Your task to perform on an android device: Check the weather Image 0: 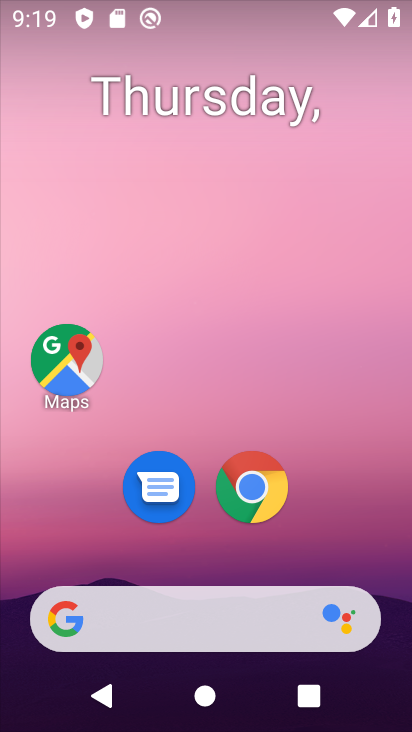
Step 0: click (268, 507)
Your task to perform on an android device: Check the weather Image 1: 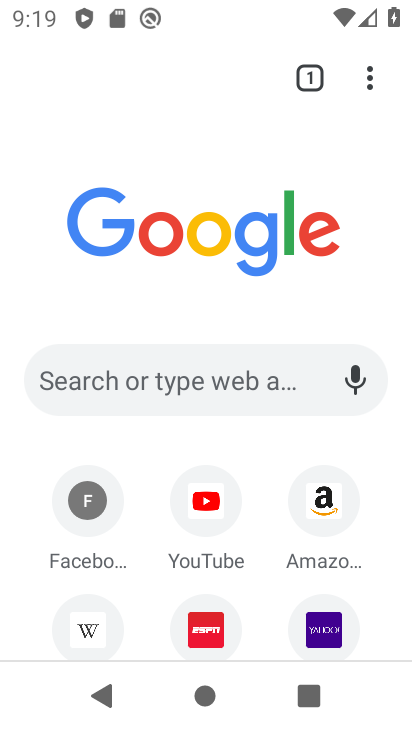
Step 1: click (190, 380)
Your task to perform on an android device: Check the weather Image 2: 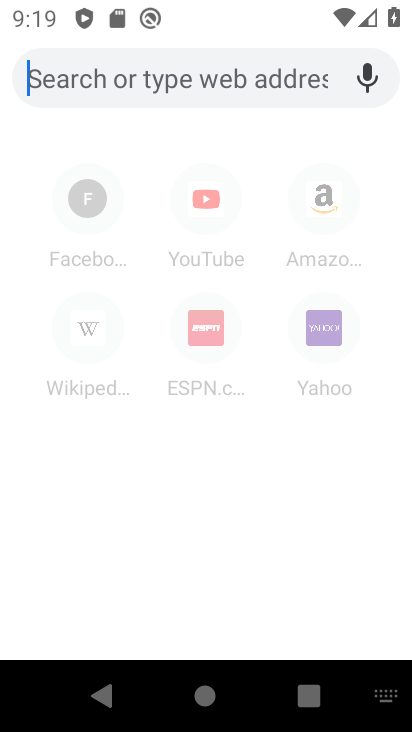
Step 2: type "check the weather"
Your task to perform on an android device: Check the weather Image 3: 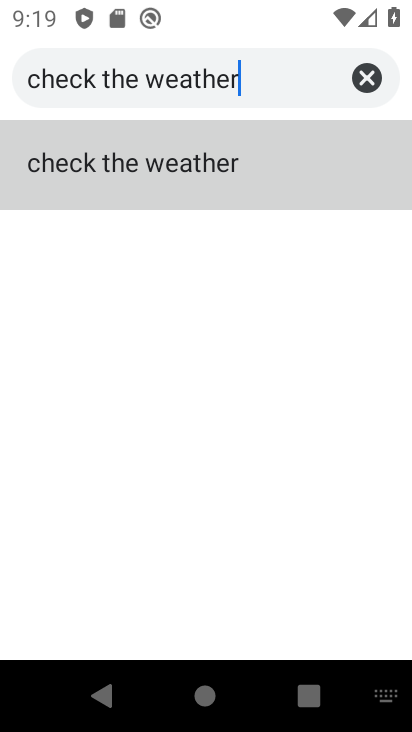
Step 3: click (56, 173)
Your task to perform on an android device: Check the weather Image 4: 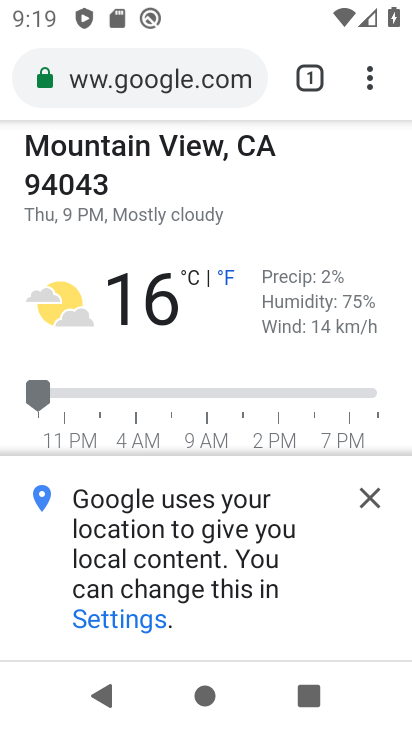
Step 4: task complete